Your task to perform on an android device: turn on improve location accuracy Image 0: 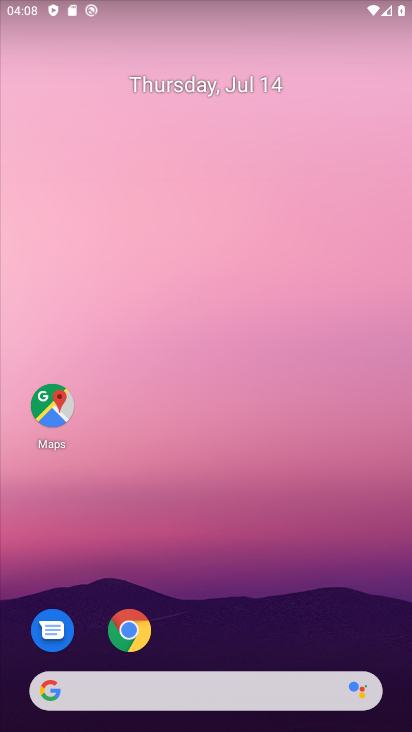
Step 0: drag from (247, 643) to (244, 126)
Your task to perform on an android device: turn on improve location accuracy Image 1: 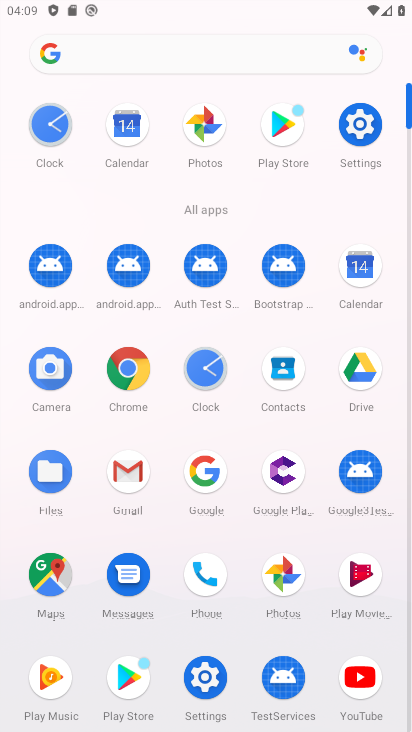
Step 1: click (362, 118)
Your task to perform on an android device: turn on improve location accuracy Image 2: 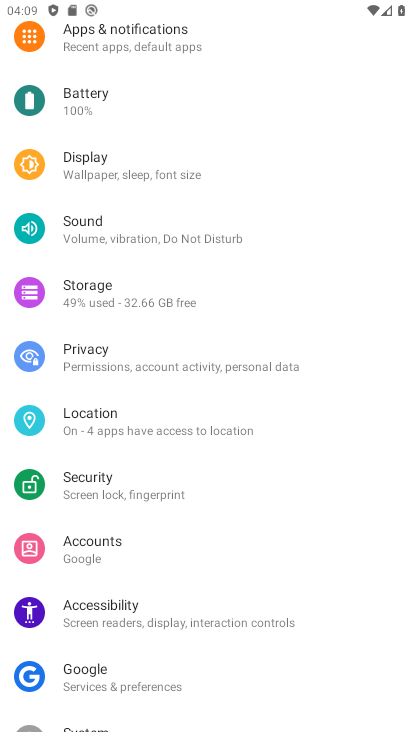
Step 2: click (127, 416)
Your task to perform on an android device: turn on improve location accuracy Image 3: 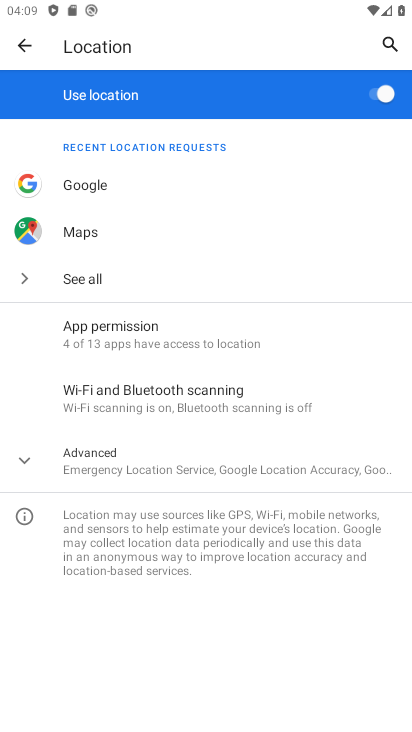
Step 3: click (84, 463)
Your task to perform on an android device: turn on improve location accuracy Image 4: 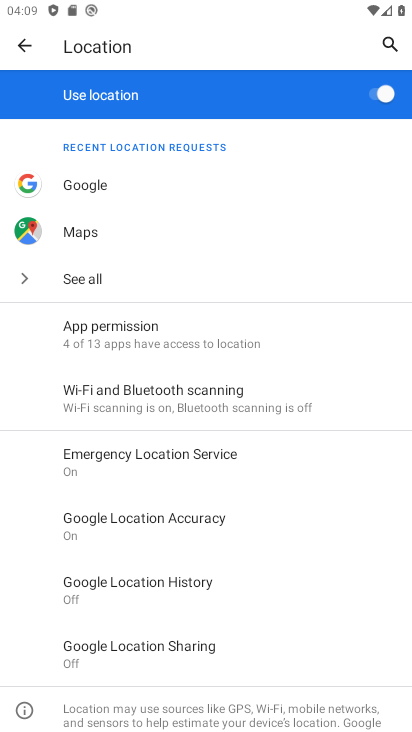
Step 4: click (215, 524)
Your task to perform on an android device: turn on improve location accuracy Image 5: 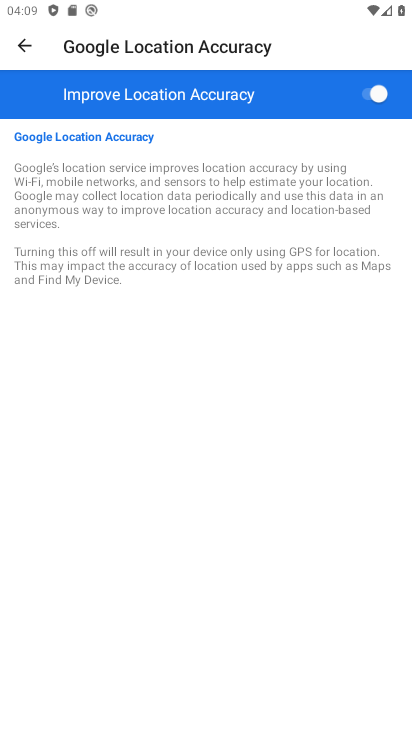
Step 5: task complete